Your task to perform on an android device: Open notification settings Image 0: 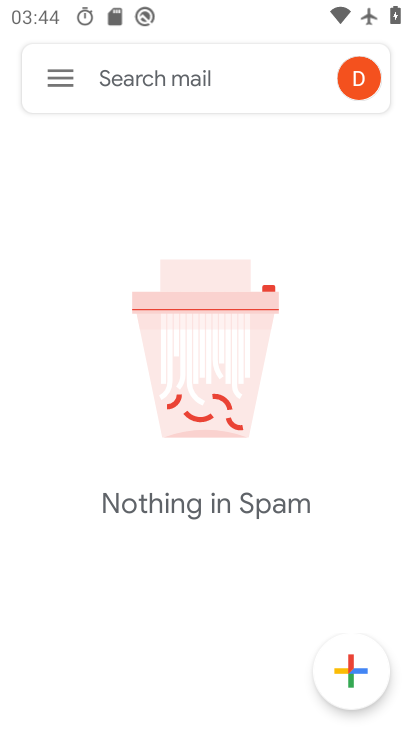
Step 0: press home button
Your task to perform on an android device: Open notification settings Image 1: 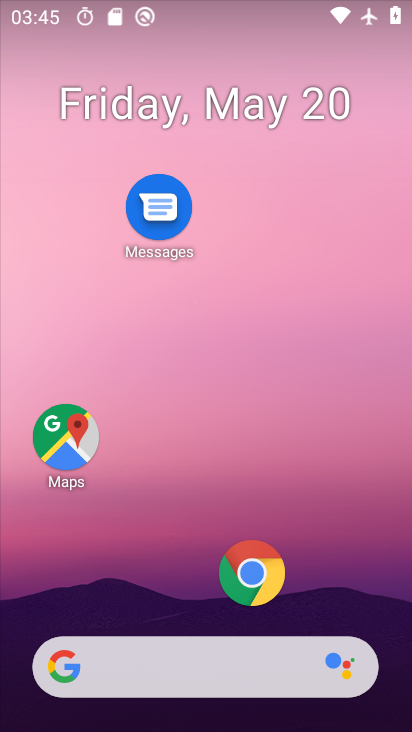
Step 1: drag from (199, 611) to (259, 152)
Your task to perform on an android device: Open notification settings Image 2: 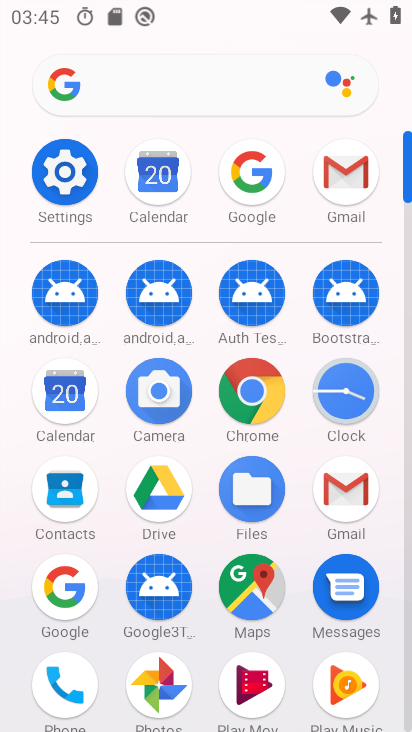
Step 2: click (78, 158)
Your task to perform on an android device: Open notification settings Image 3: 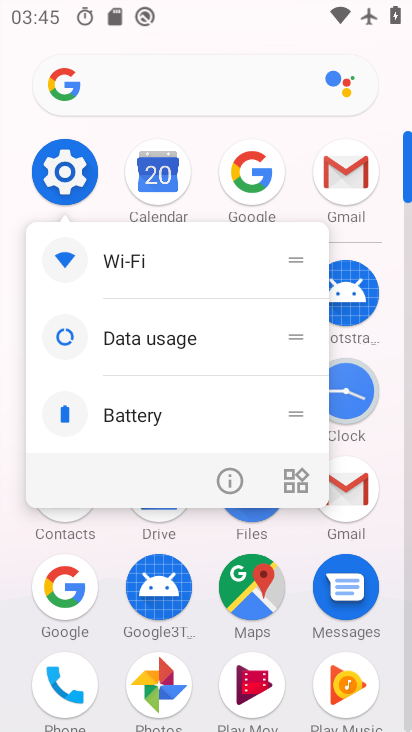
Step 3: click (78, 158)
Your task to perform on an android device: Open notification settings Image 4: 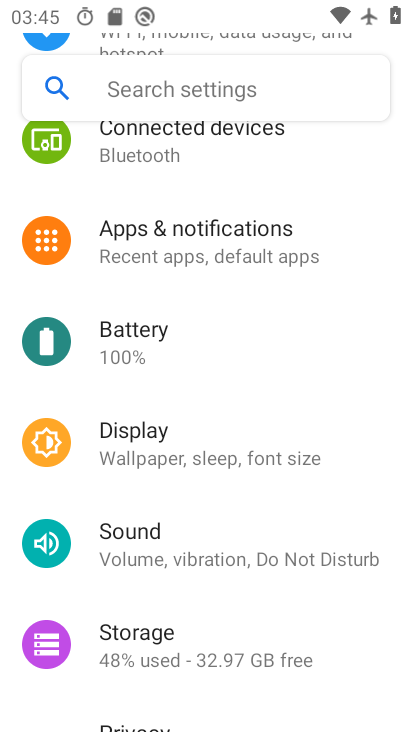
Step 4: click (217, 258)
Your task to perform on an android device: Open notification settings Image 5: 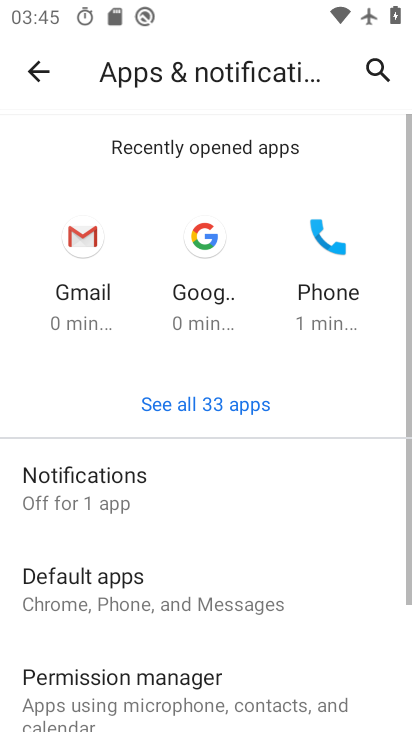
Step 5: click (206, 482)
Your task to perform on an android device: Open notification settings Image 6: 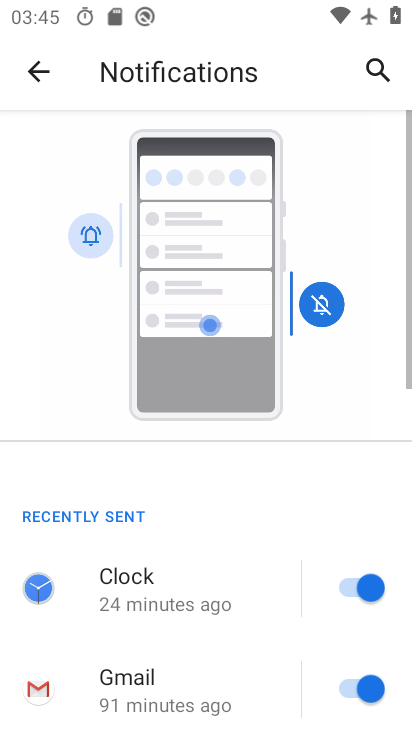
Step 6: task complete